Your task to perform on an android device: find which apps use the phone's location Image 0: 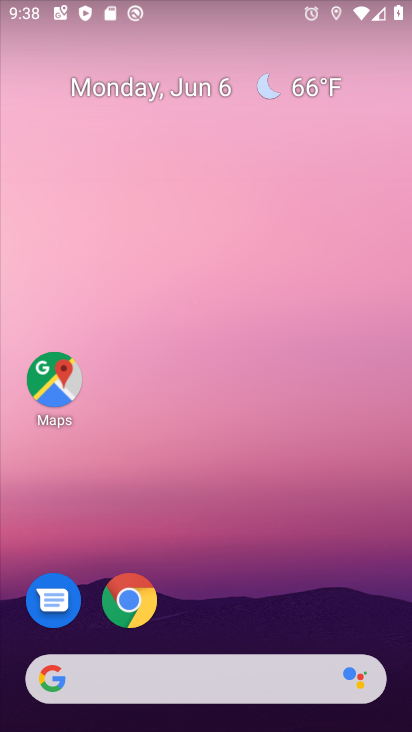
Step 0: drag from (41, 582) to (210, 91)
Your task to perform on an android device: find which apps use the phone's location Image 1: 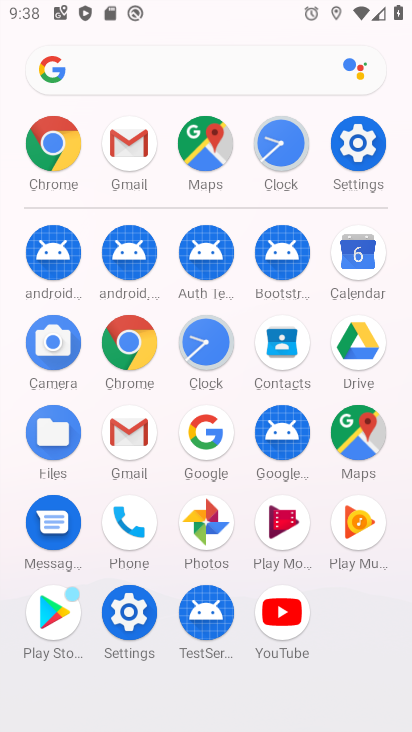
Step 1: click (373, 147)
Your task to perform on an android device: find which apps use the phone's location Image 2: 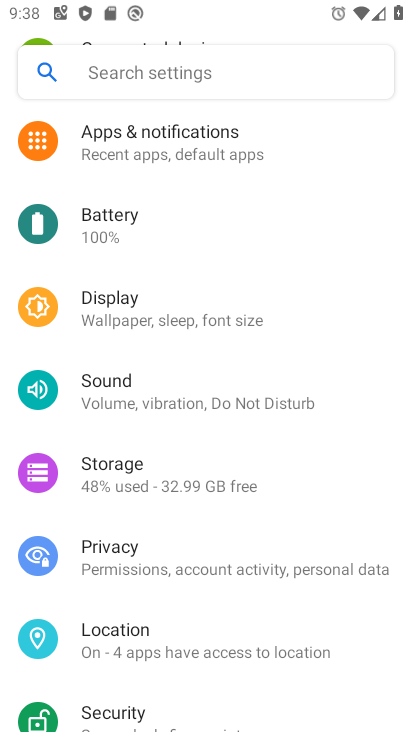
Step 2: click (187, 666)
Your task to perform on an android device: find which apps use the phone's location Image 3: 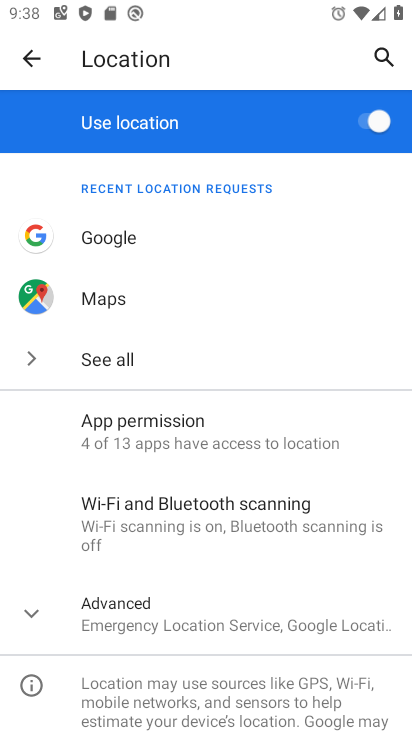
Step 3: click (198, 420)
Your task to perform on an android device: find which apps use the phone's location Image 4: 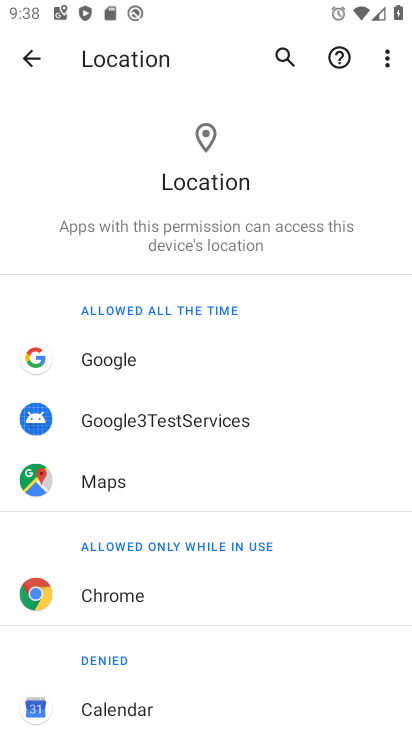
Step 4: task complete